Your task to perform on an android device: turn off notifications in google photos Image 0: 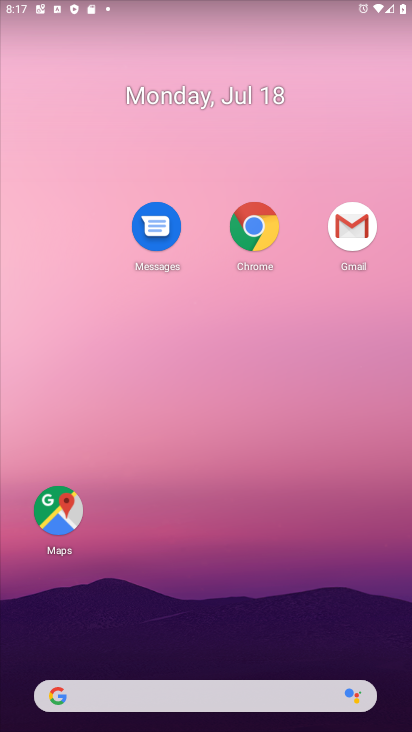
Step 0: press home button
Your task to perform on an android device: turn off notifications in google photos Image 1: 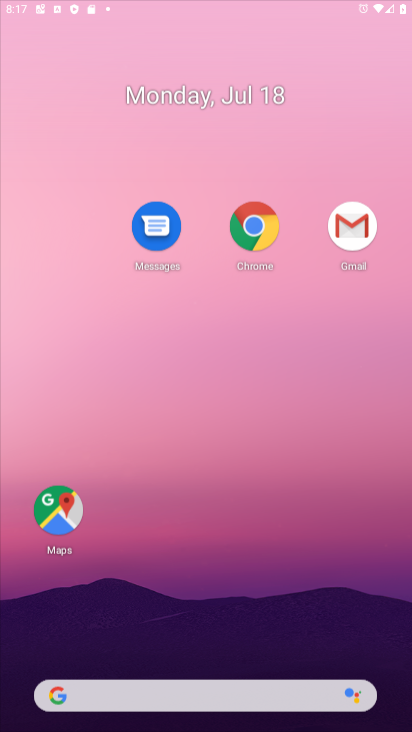
Step 1: click (362, 224)
Your task to perform on an android device: turn off notifications in google photos Image 2: 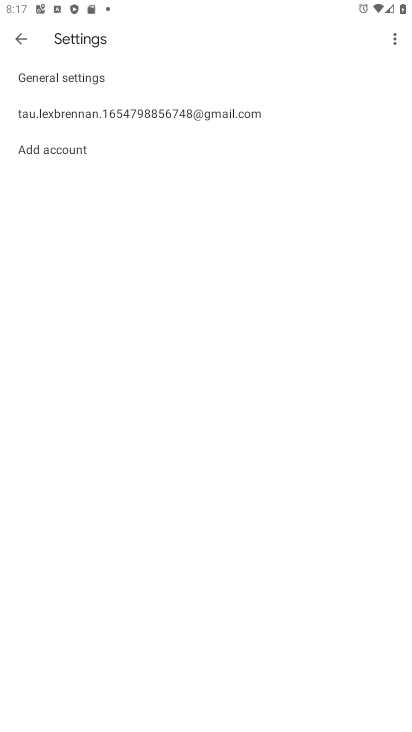
Step 2: click (53, 74)
Your task to perform on an android device: turn off notifications in google photos Image 3: 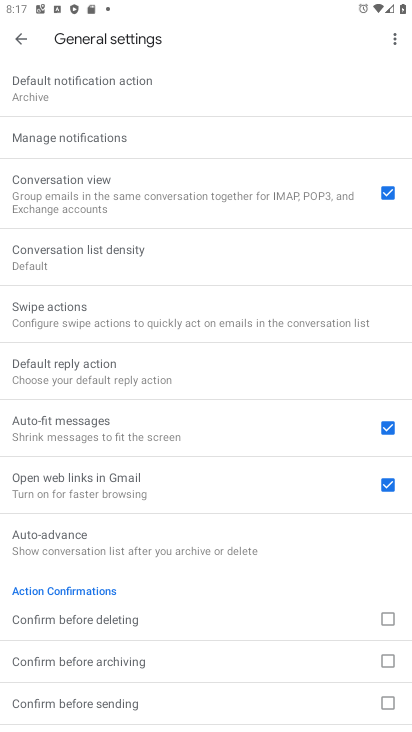
Step 3: click (101, 139)
Your task to perform on an android device: turn off notifications in google photos Image 4: 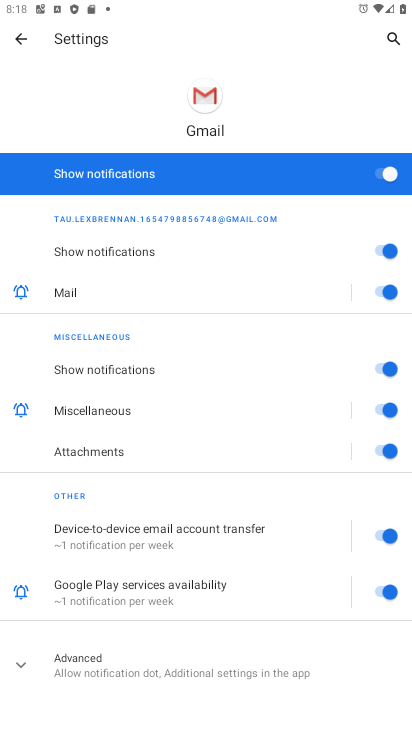
Step 4: click (377, 172)
Your task to perform on an android device: turn off notifications in google photos Image 5: 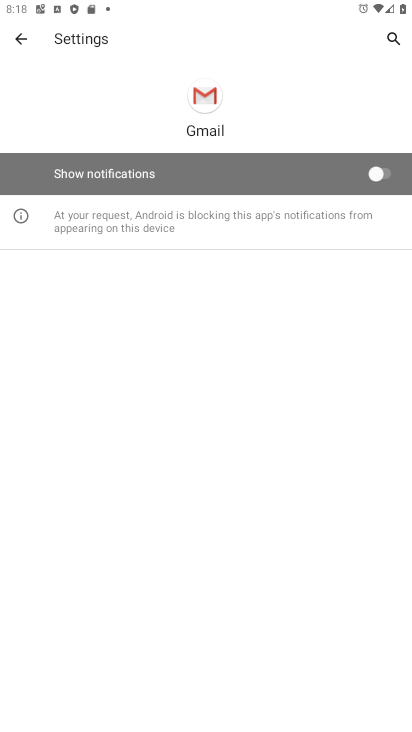
Step 5: task complete